Your task to perform on an android device: refresh tabs in the chrome app Image 0: 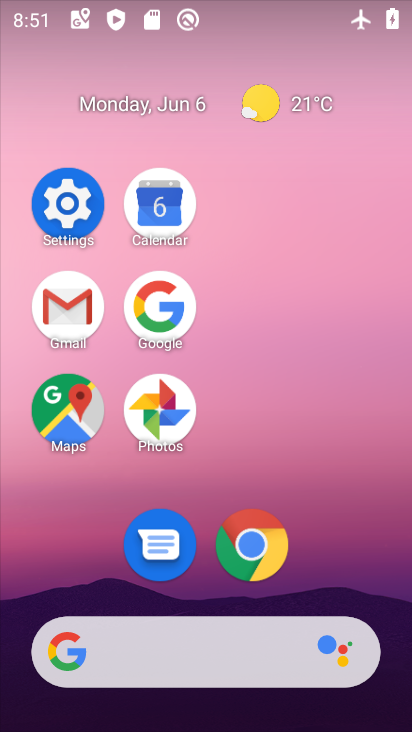
Step 0: click (251, 529)
Your task to perform on an android device: refresh tabs in the chrome app Image 1: 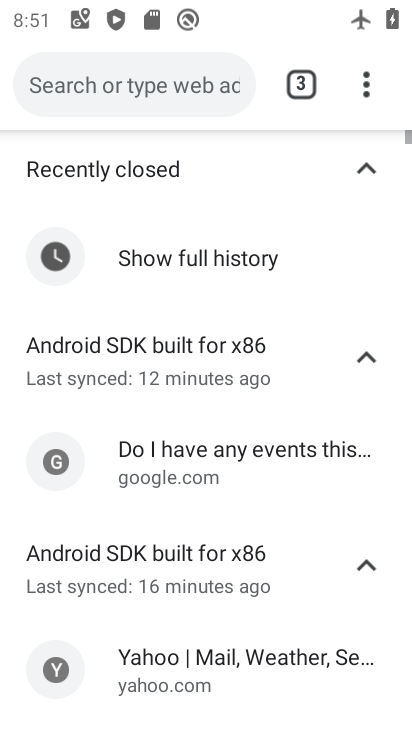
Step 1: click (374, 75)
Your task to perform on an android device: refresh tabs in the chrome app Image 2: 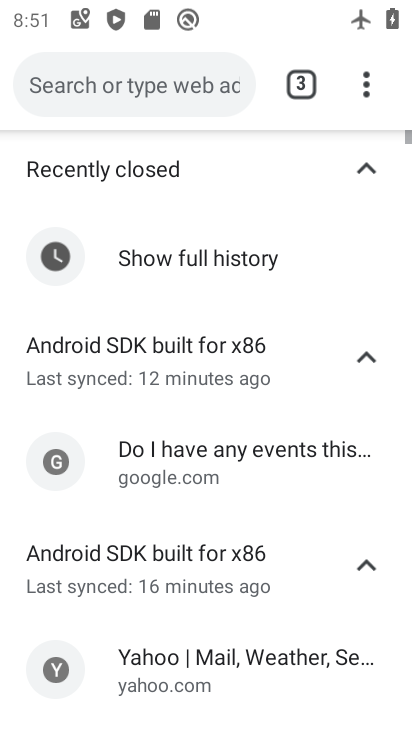
Step 2: click (374, 75)
Your task to perform on an android device: refresh tabs in the chrome app Image 3: 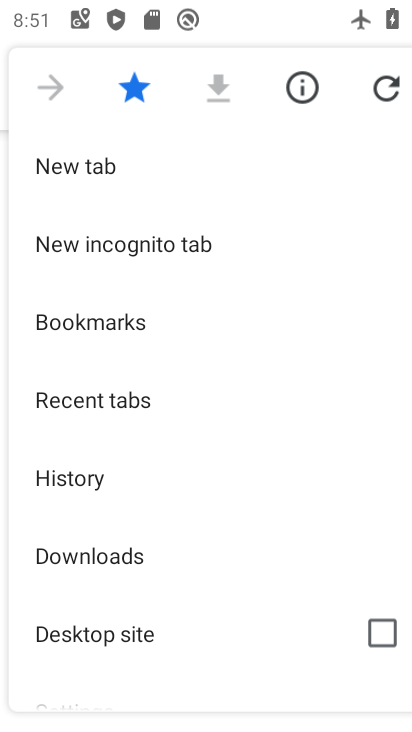
Step 3: click (390, 102)
Your task to perform on an android device: refresh tabs in the chrome app Image 4: 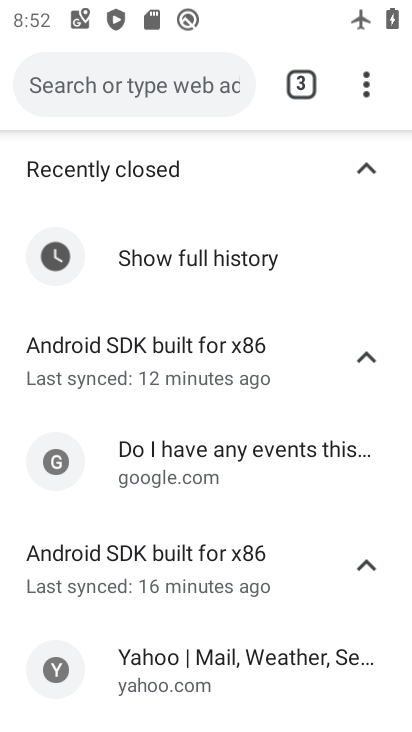
Step 4: click (348, 82)
Your task to perform on an android device: refresh tabs in the chrome app Image 5: 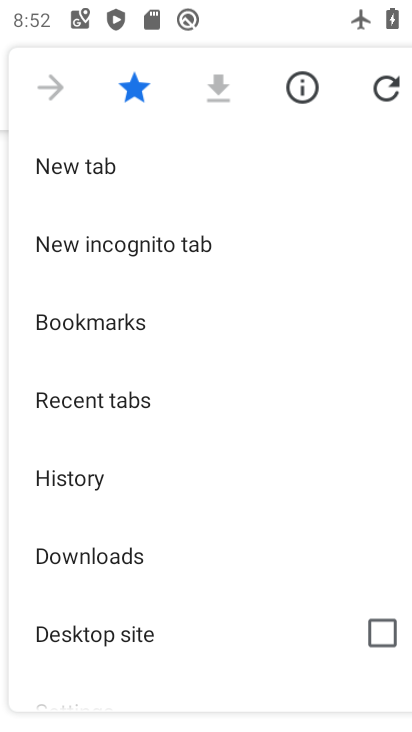
Step 5: click (388, 76)
Your task to perform on an android device: refresh tabs in the chrome app Image 6: 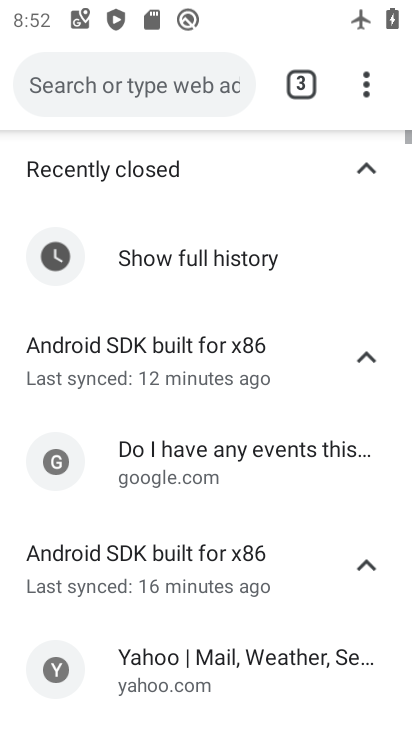
Step 6: task complete